Your task to perform on an android device: Open my contact list Image 0: 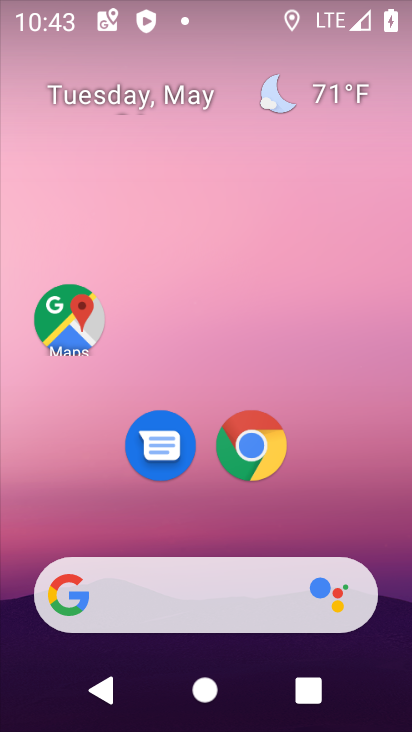
Step 0: drag from (332, 512) to (281, 68)
Your task to perform on an android device: Open my contact list Image 1: 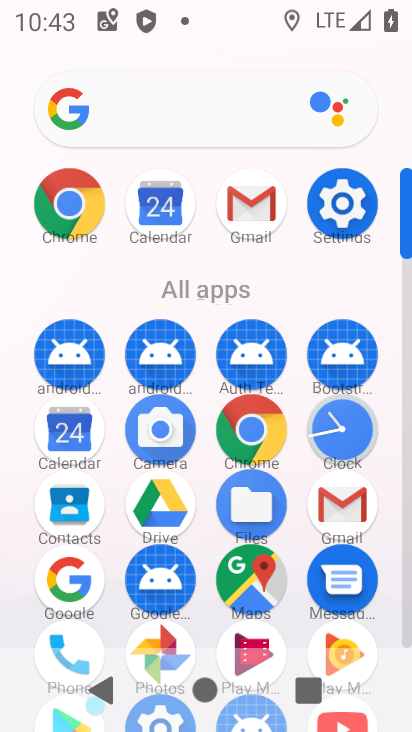
Step 1: click (69, 505)
Your task to perform on an android device: Open my contact list Image 2: 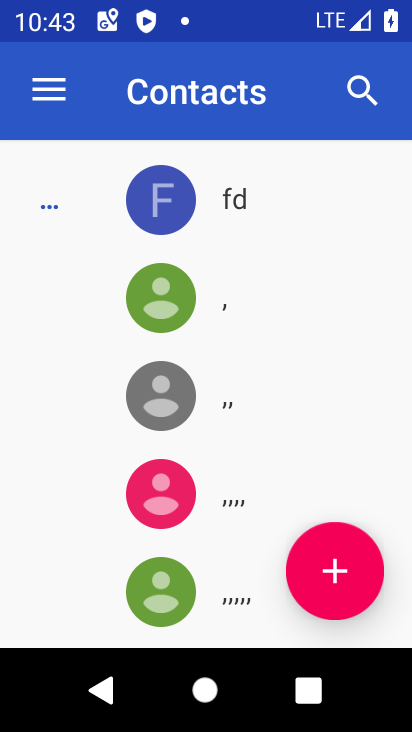
Step 2: click (334, 574)
Your task to perform on an android device: Open my contact list Image 3: 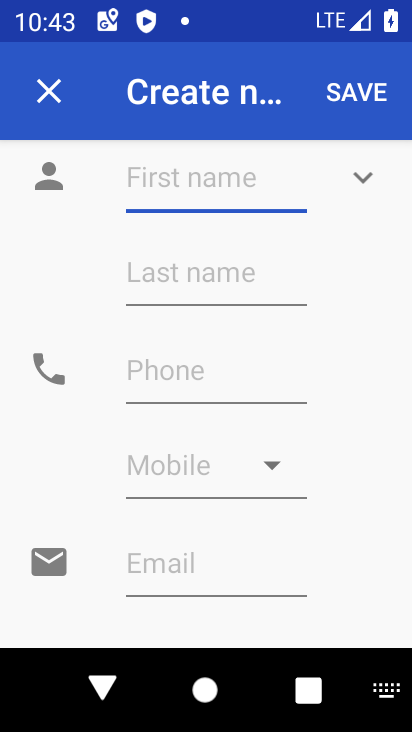
Step 3: click (56, 91)
Your task to perform on an android device: Open my contact list Image 4: 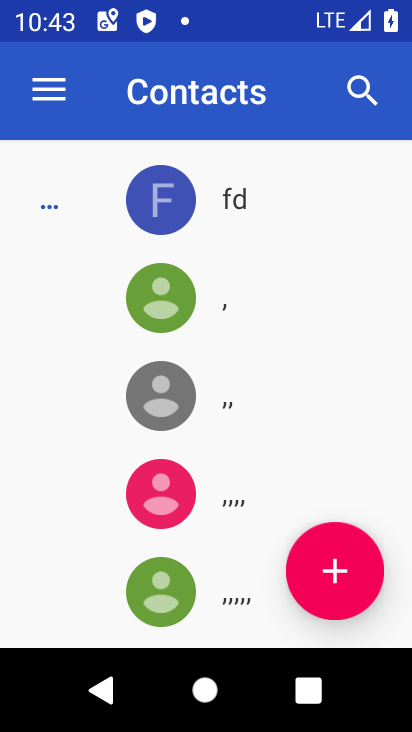
Step 4: task complete